Your task to perform on an android device: Open Amazon Image 0: 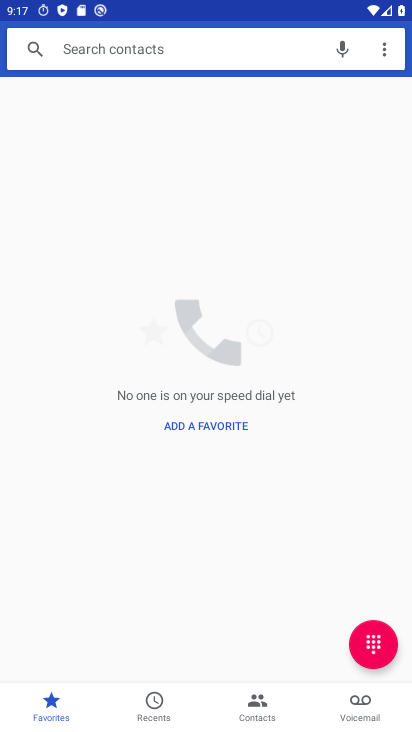
Step 0: press home button
Your task to perform on an android device: Open Amazon Image 1: 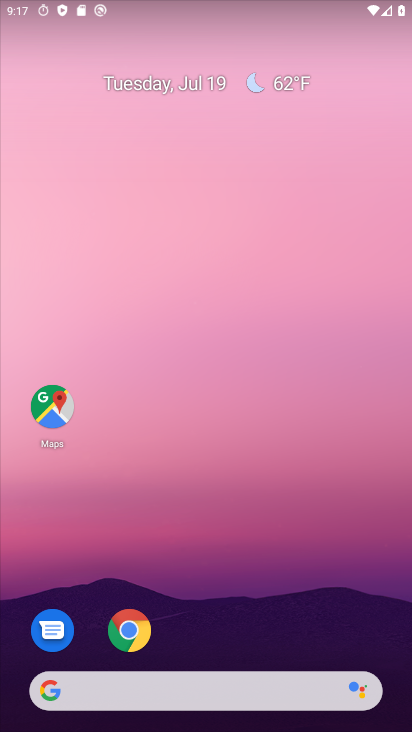
Step 1: drag from (121, 679) to (118, 172)
Your task to perform on an android device: Open Amazon Image 2: 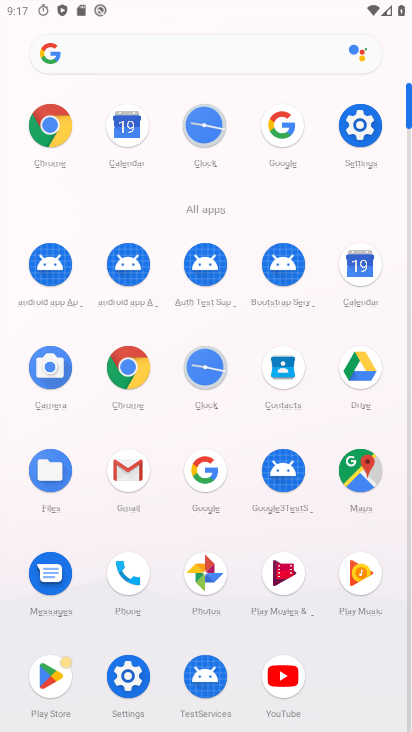
Step 2: click (196, 474)
Your task to perform on an android device: Open Amazon Image 3: 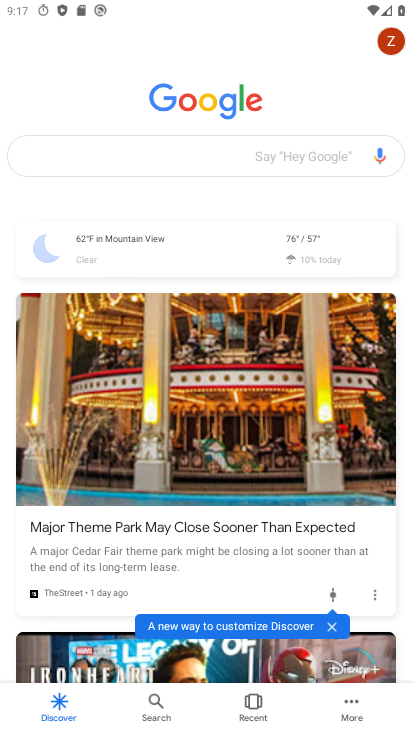
Step 3: click (142, 155)
Your task to perform on an android device: Open Amazon Image 4: 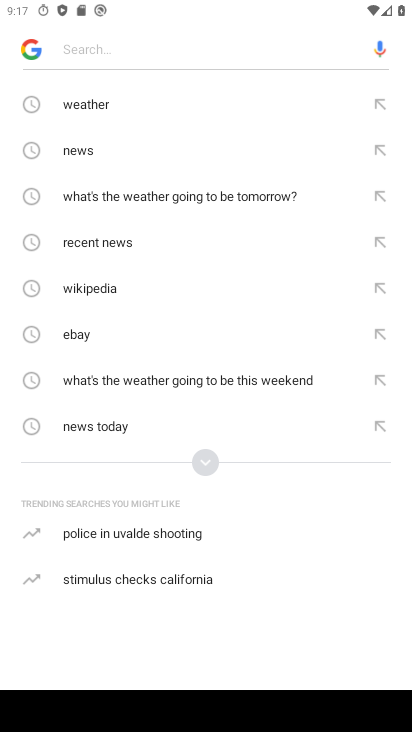
Step 4: click (207, 462)
Your task to perform on an android device: Open Amazon Image 5: 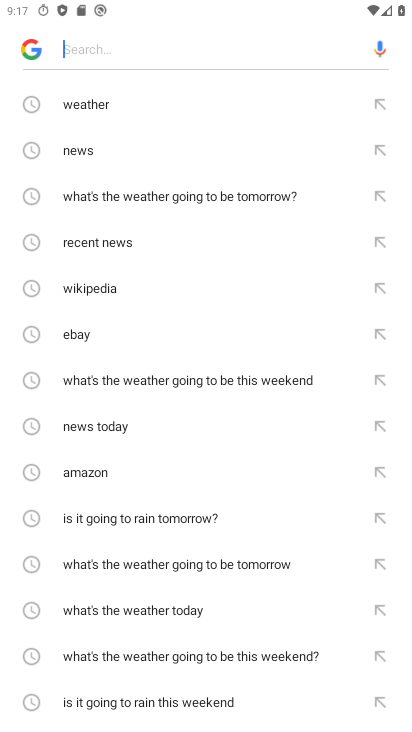
Step 5: drag from (266, 673) to (283, 328)
Your task to perform on an android device: Open Amazon Image 6: 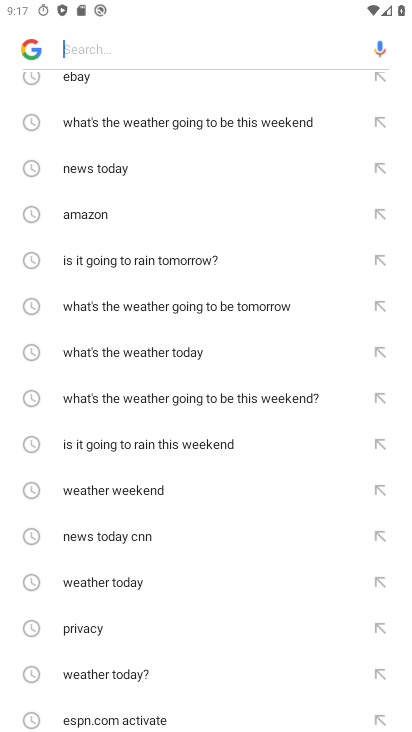
Step 6: drag from (282, 666) to (281, 252)
Your task to perform on an android device: Open Amazon Image 7: 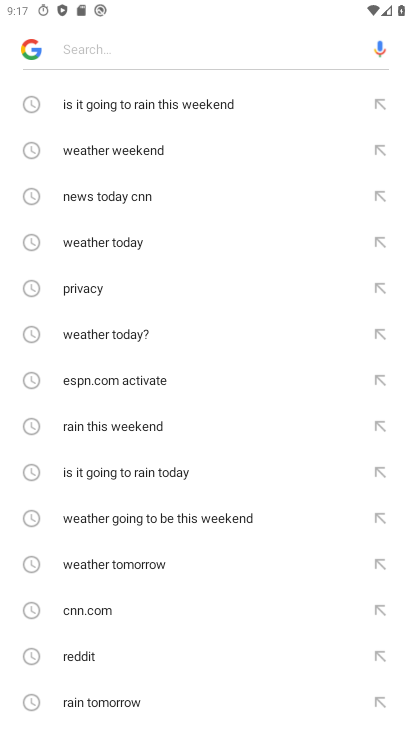
Step 7: drag from (137, 681) to (294, 126)
Your task to perform on an android device: Open Amazon Image 8: 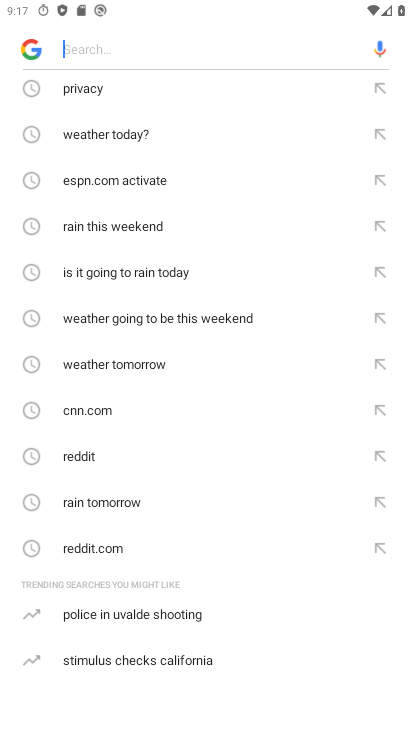
Step 8: drag from (155, 112) to (140, 521)
Your task to perform on an android device: Open Amazon Image 9: 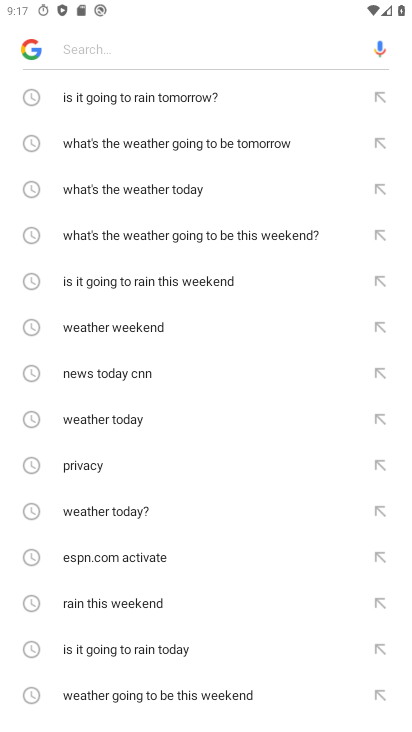
Step 9: type "Open Amazon"
Your task to perform on an android device: Open Amazon Image 10: 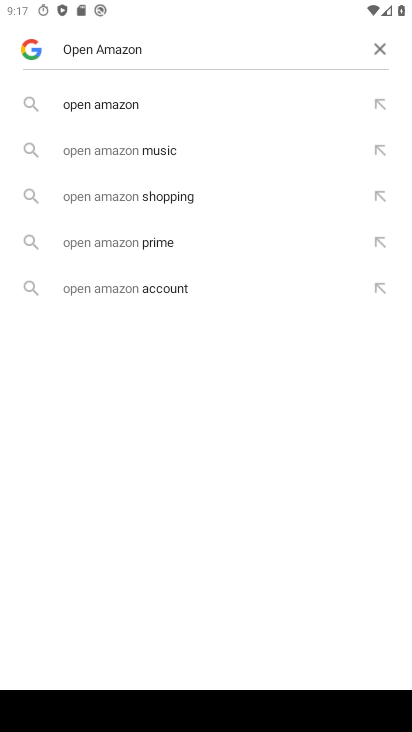
Step 10: click (99, 109)
Your task to perform on an android device: Open Amazon Image 11: 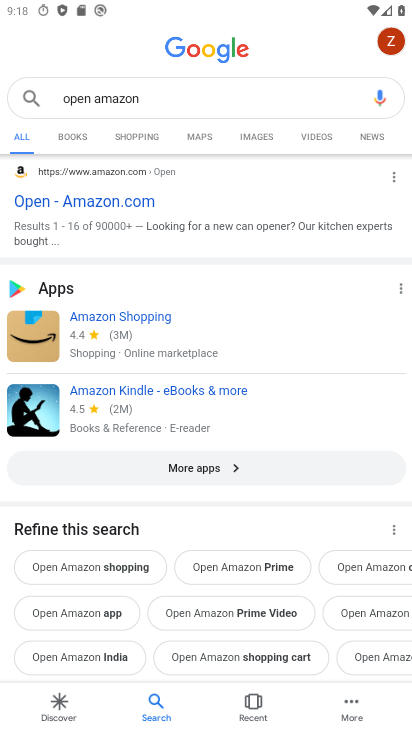
Step 11: click (102, 192)
Your task to perform on an android device: Open Amazon Image 12: 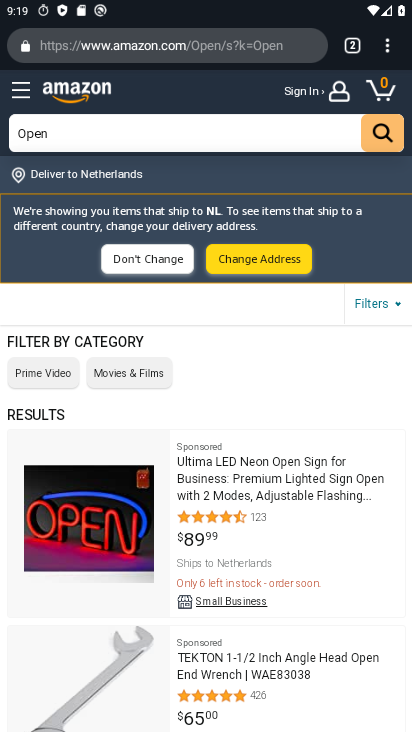
Step 12: task complete